Your task to perform on an android device: check battery use Image 0: 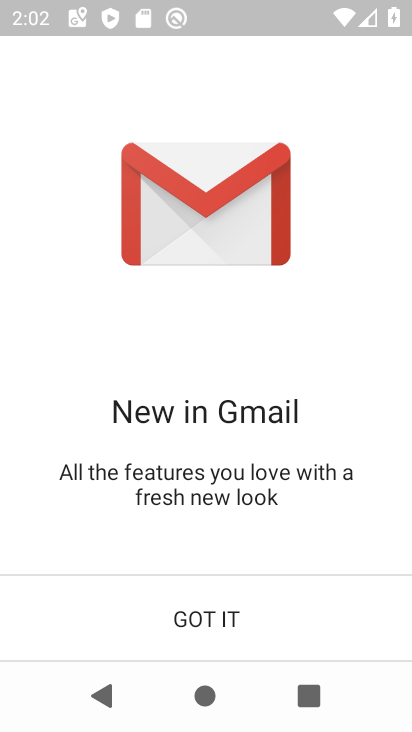
Step 0: press home button
Your task to perform on an android device: check battery use Image 1: 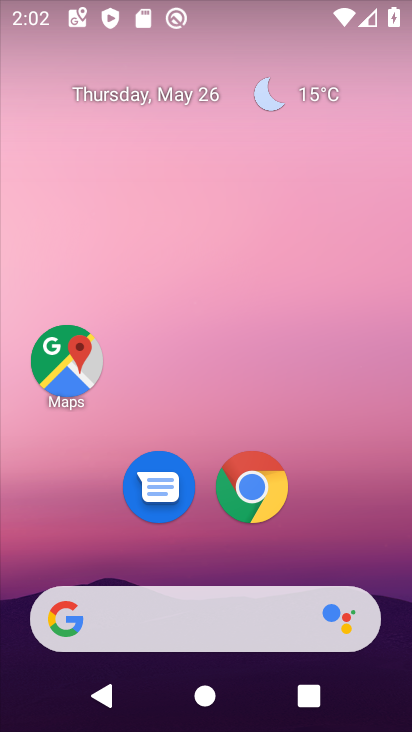
Step 1: drag from (216, 559) to (153, 101)
Your task to perform on an android device: check battery use Image 2: 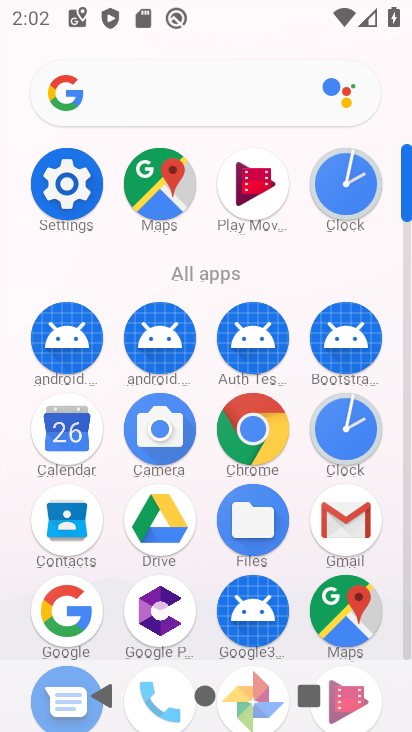
Step 2: click (59, 190)
Your task to perform on an android device: check battery use Image 3: 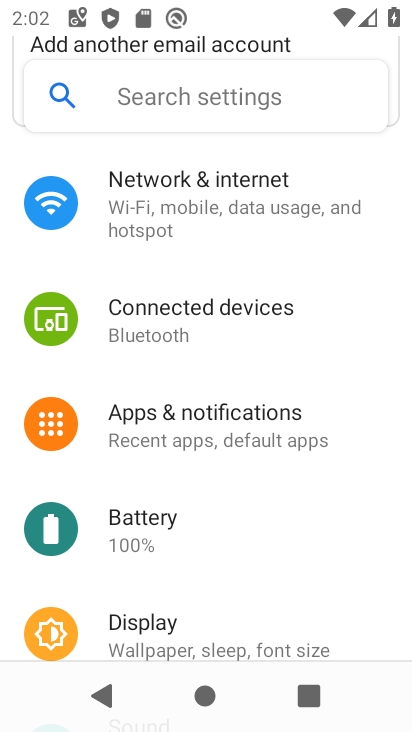
Step 3: drag from (191, 204) to (209, 323)
Your task to perform on an android device: check battery use Image 4: 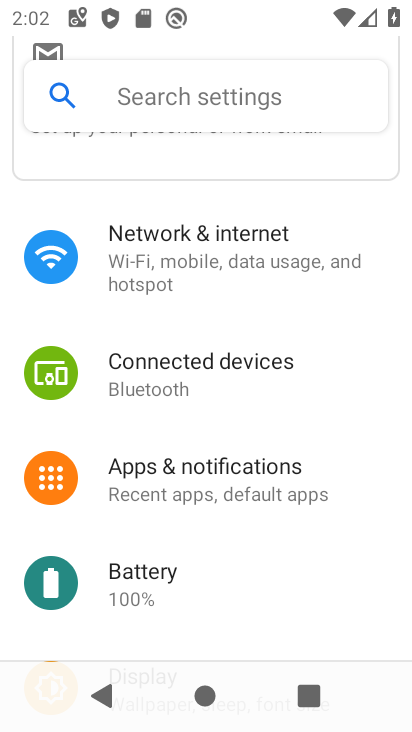
Step 4: click (209, 567)
Your task to perform on an android device: check battery use Image 5: 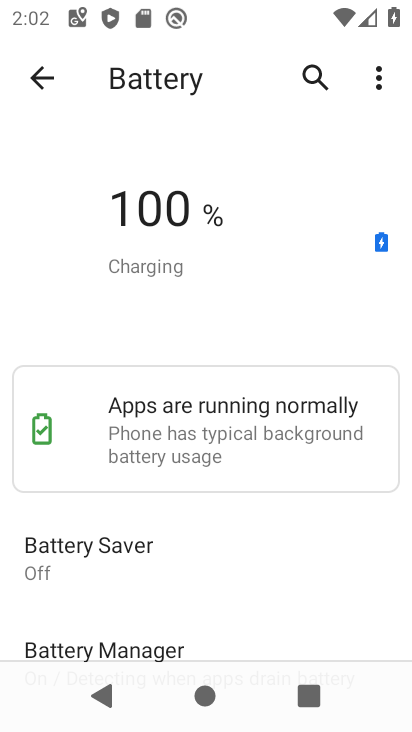
Step 5: click (369, 78)
Your task to perform on an android device: check battery use Image 6: 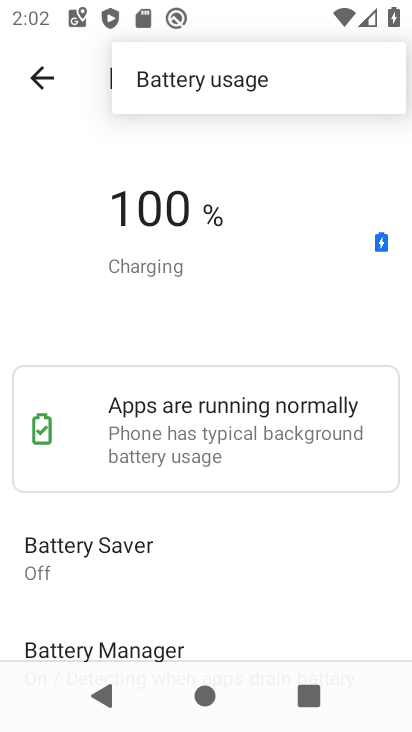
Step 6: click (278, 72)
Your task to perform on an android device: check battery use Image 7: 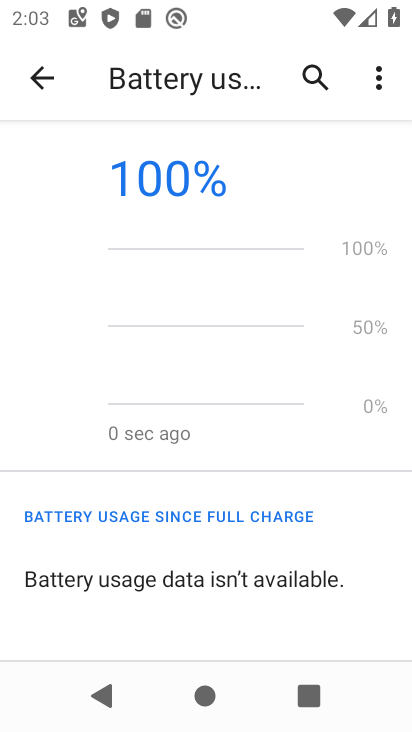
Step 7: task complete